Your task to perform on an android device: toggle priority inbox in the gmail app Image 0: 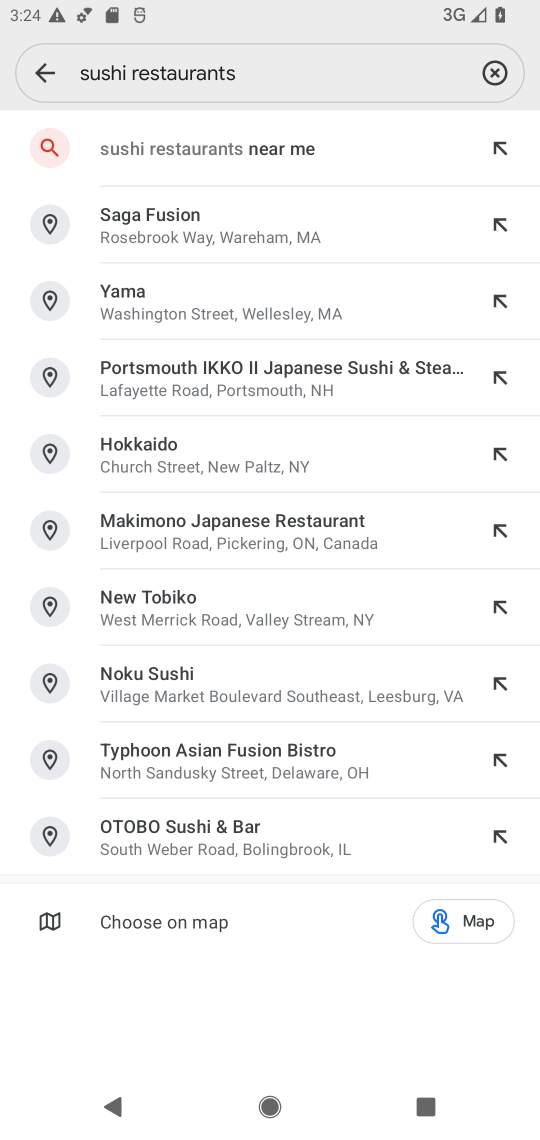
Step 0: press home button
Your task to perform on an android device: toggle priority inbox in the gmail app Image 1: 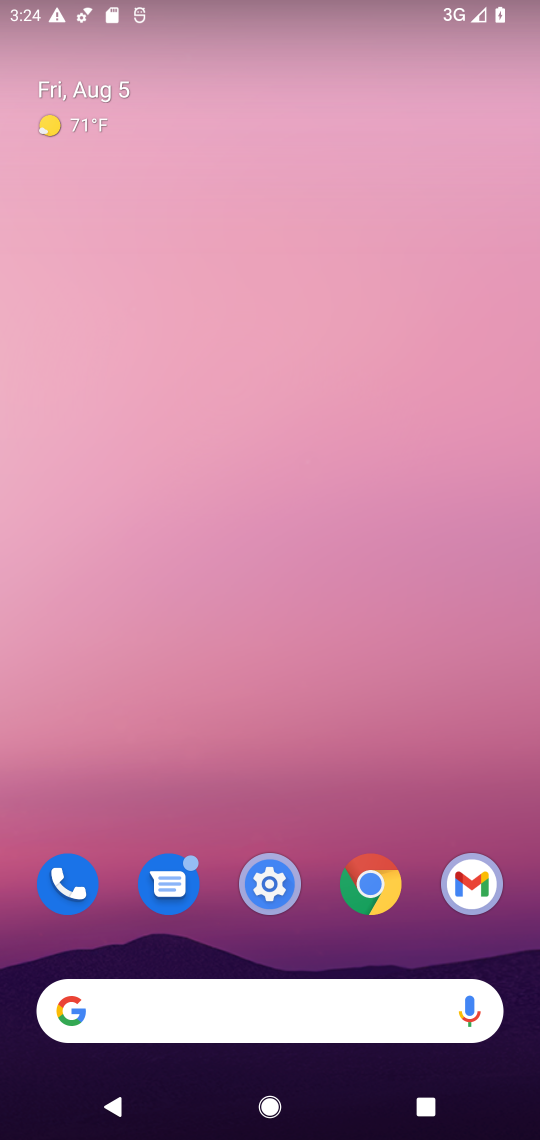
Step 1: drag from (366, 631) to (222, 36)
Your task to perform on an android device: toggle priority inbox in the gmail app Image 2: 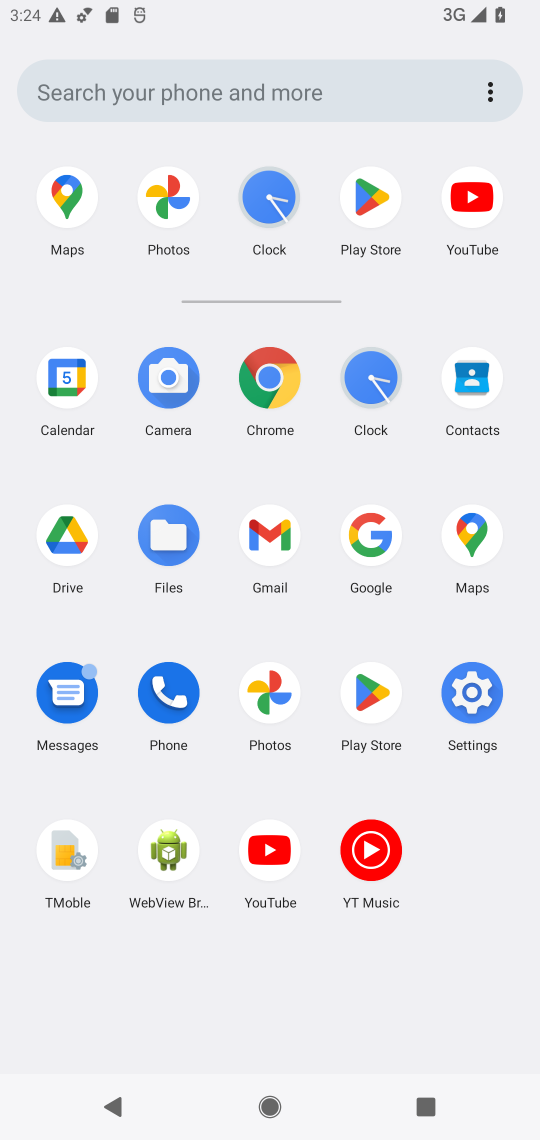
Step 2: click (277, 554)
Your task to perform on an android device: toggle priority inbox in the gmail app Image 3: 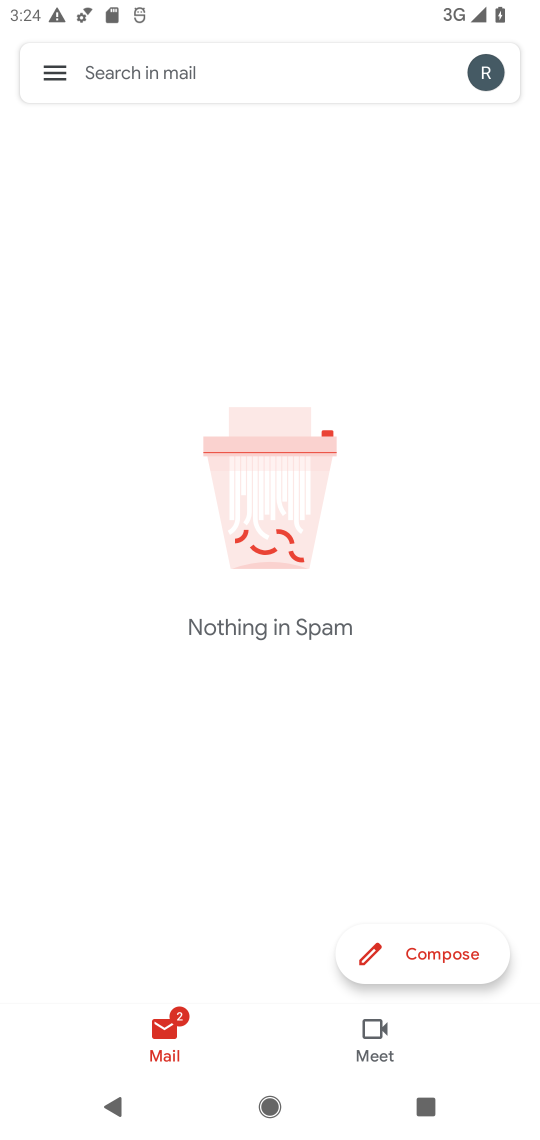
Step 3: click (44, 63)
Your task to perform on an android device: toggle priority inbox in the gmail app Image 4: 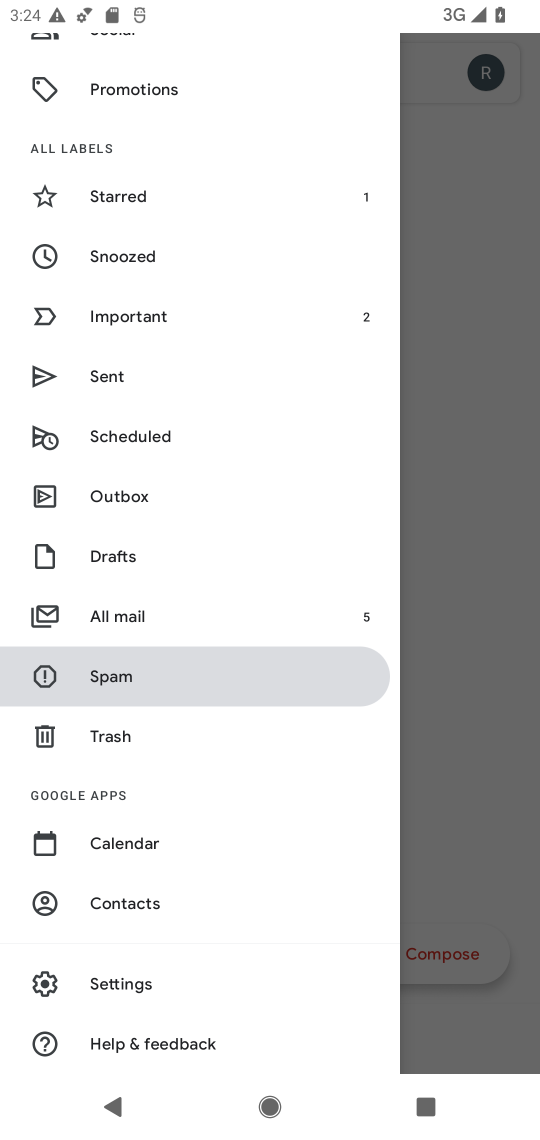
Step 4: drag from (200, 1038) to (233, 101)
Your task to perform on an android device: toggle priority inbox in the gmail app Image 5: 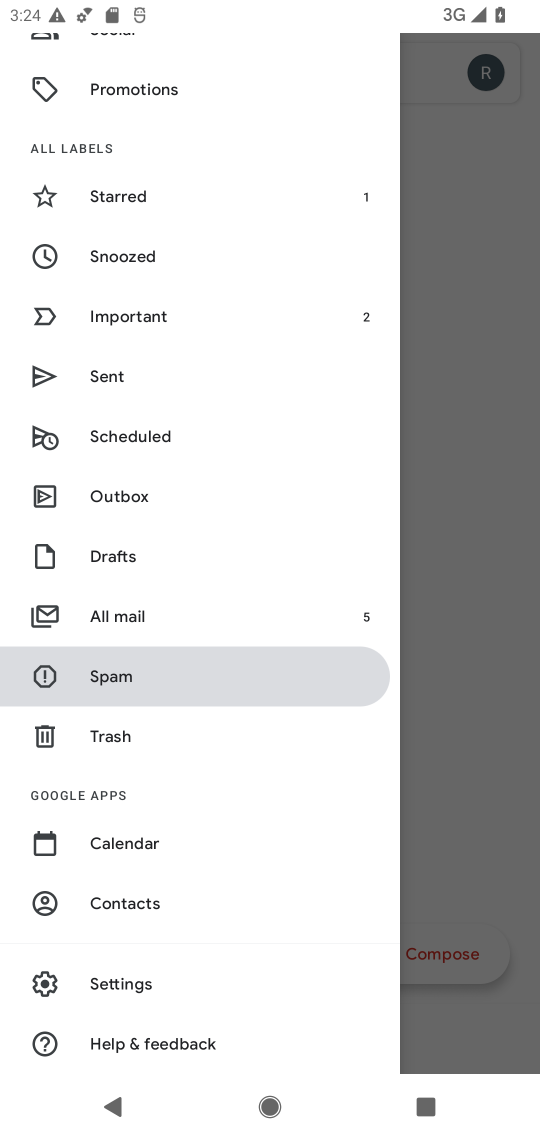
Step 5: click (106, 999)
Your task to perform on an android device: toggle priority inbox in the gmail app Image 6: 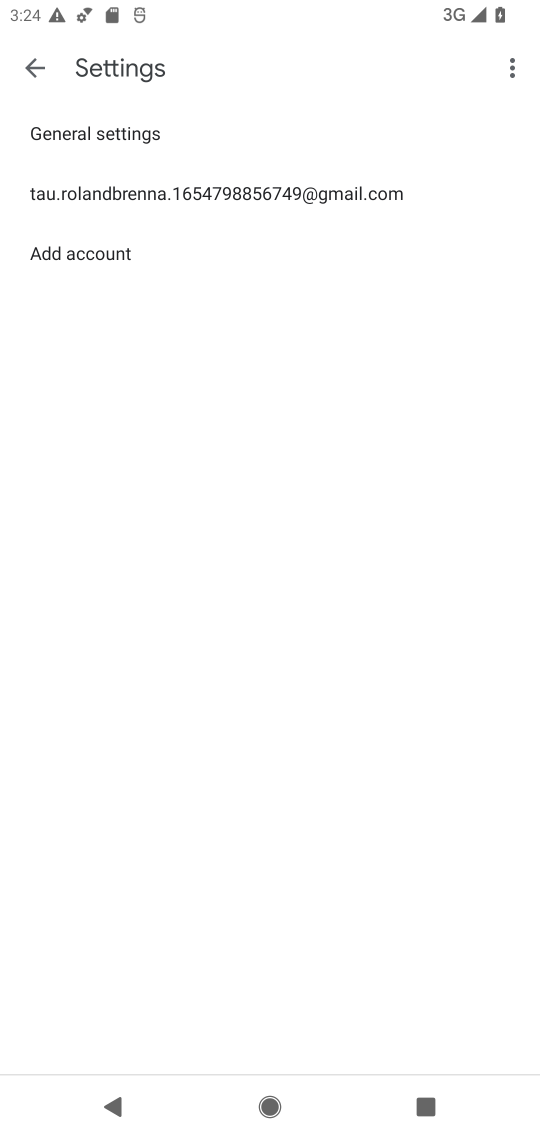
Step 6: click (114, 184)
Your task to perform on an android device: toggle priority inbox in the gmail app Image 7: 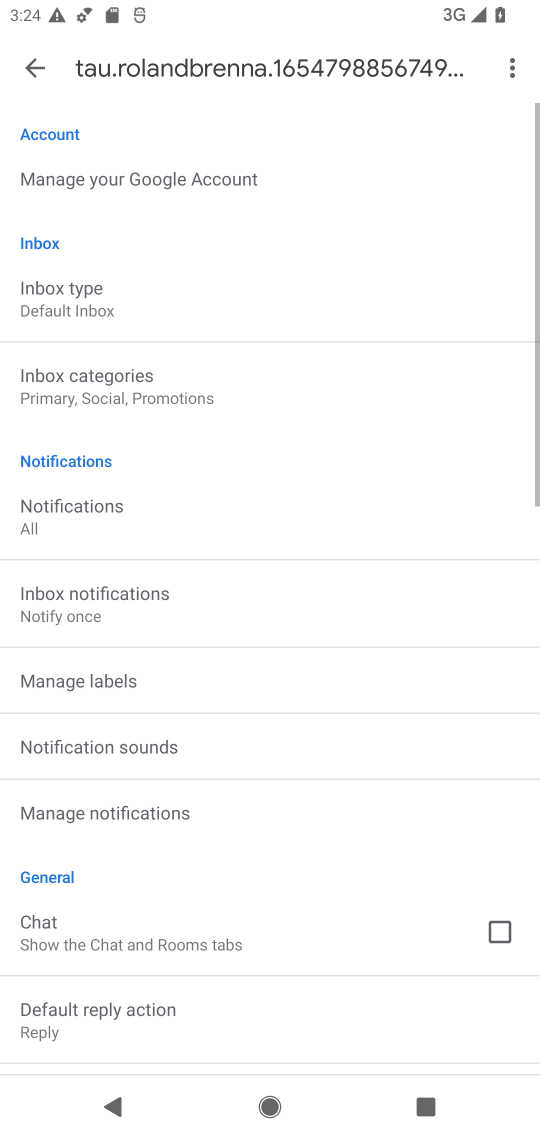
Step 7: click (132, 294)
Your task to perform on an android device: toggle priority inbox in the gmail app Image 8: 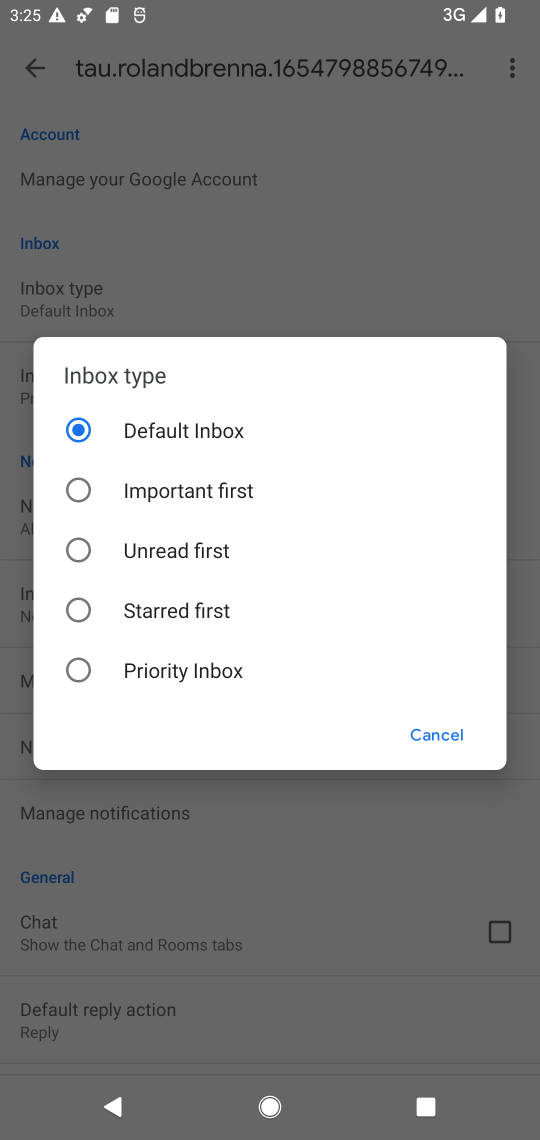
Step 8: task complete